Your task to perform on an android device: turn on data saver in the chrome app Image 0: 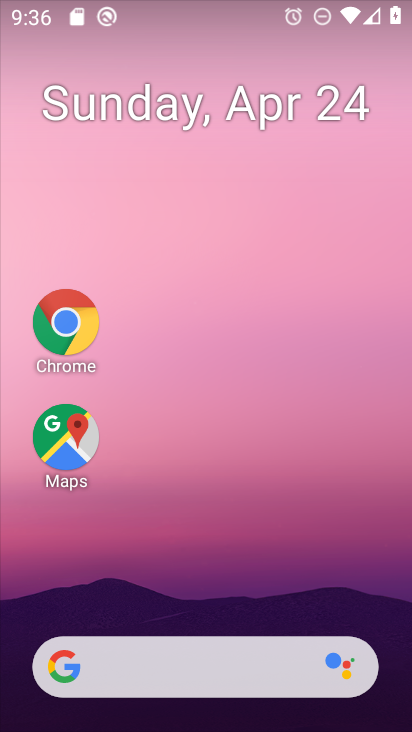
Step 0: click (70, 319)
Your task to perform on an android device: turn on data saver in the chrome app Image 1: 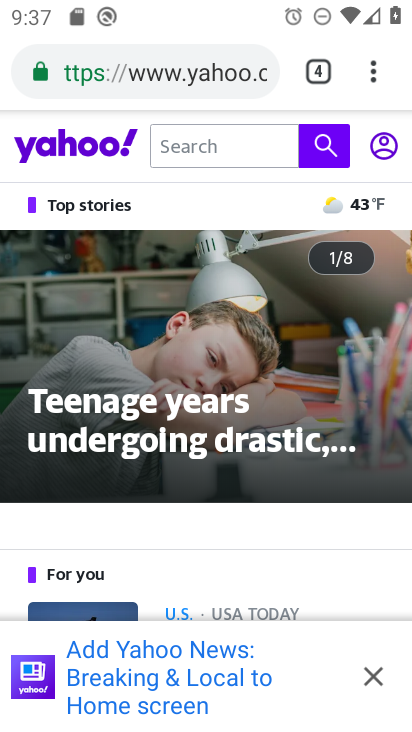
Step 1: click (372, 65)
Your task to perform on an android device: turn on data saver in the chrome app Image 2: 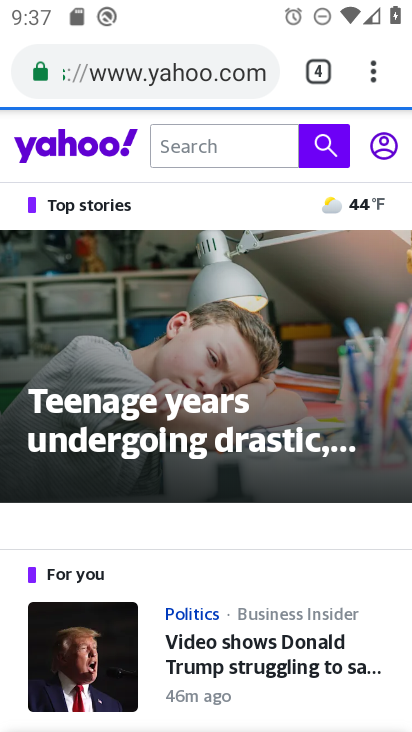
Step 2: click (369, 86)
Your task to perform on an android device: turn on data saver in the chrome app Image 3: 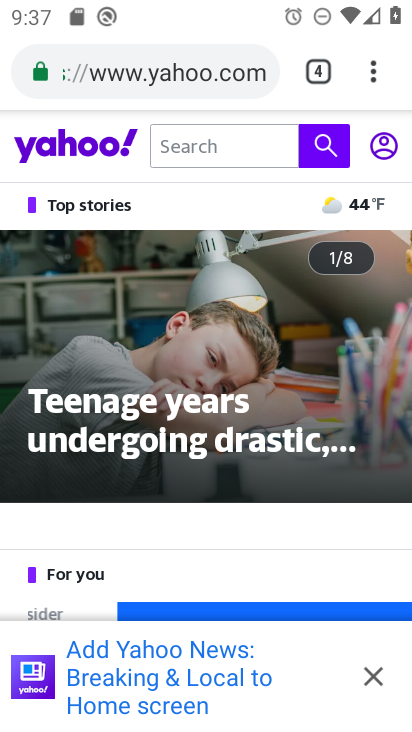
Step 3: click (371, 68)
Your task to perform on an android device: turn on data saver in the chrome app Image 4: 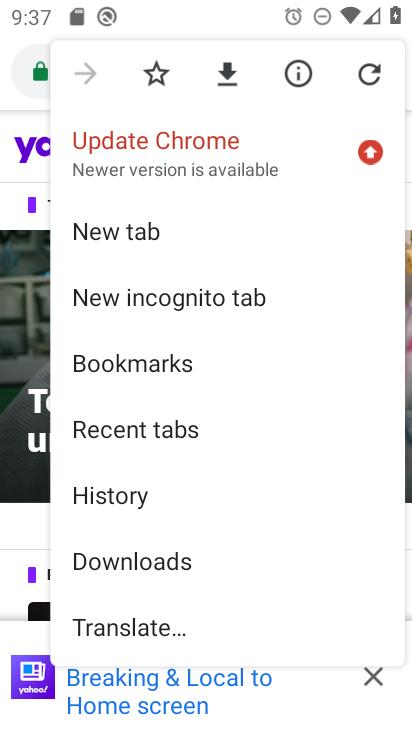
Step 4: drag from (281, 541) to (227, 244)
Your task to perform on an android device: turn on data saver in the chrome app Image 5: 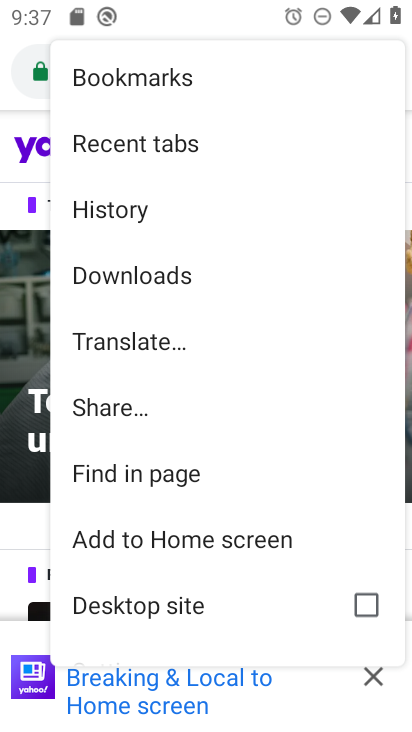
Step 5: drag from (288, 361) to (201, 45)
Your task to perform on an android device: turn on data saver in the chrome app Image 6: 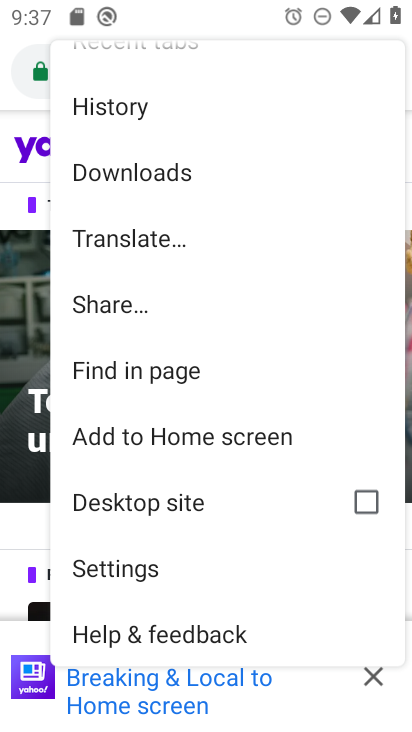
Step 6: click (127, 571)
Your task to perform on an android device: turn on data saver in the chrome app Image 7: 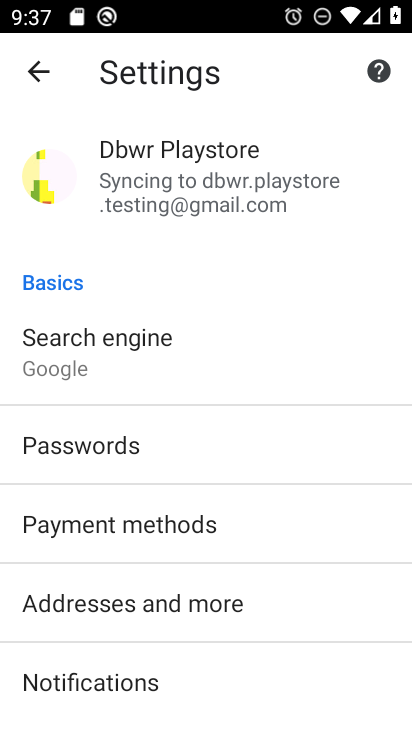
Step 7: drag from (231, 501) to (177, 196)
Your task to perform on an android device: turn on data saver in the chrome app Image 8: 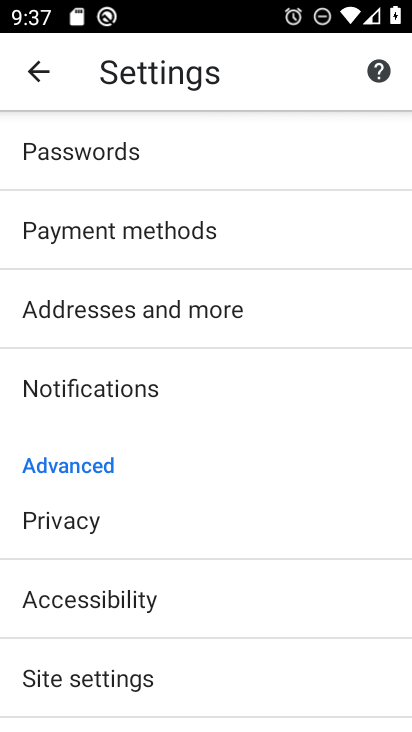
Step 8: drag from (210, 576) to (174, 319)
Your task to perform on an android device: turn on data saver in the chrome app Image 9: 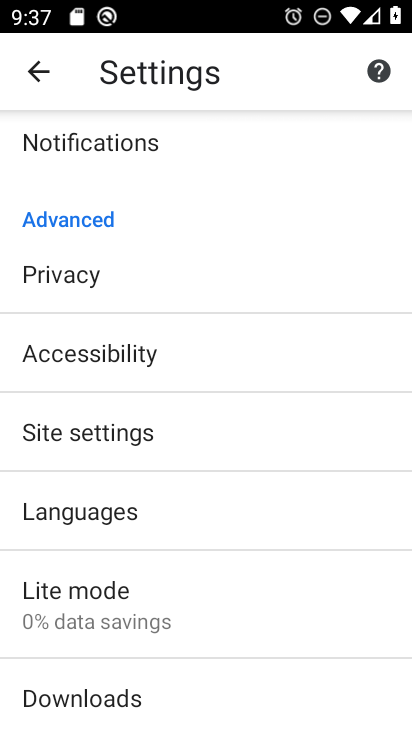
Step 9: click (95, 589)
Your task to perform on an android device: turn on data saver in the chrome app Image 10: 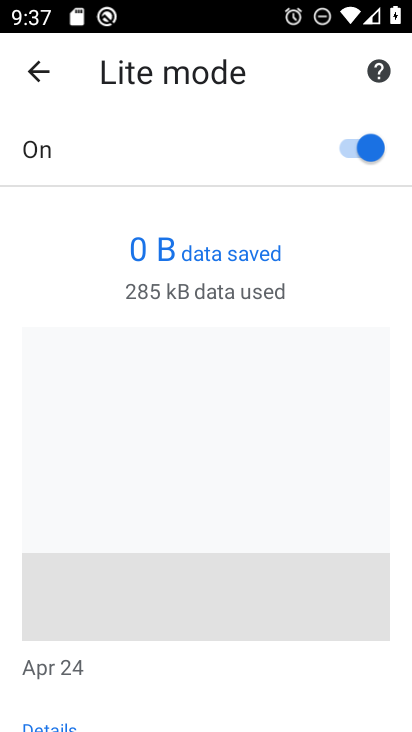
Step 10: task complete